Your task to perform on an android device: turn on javascript in the chrome app Image 0: 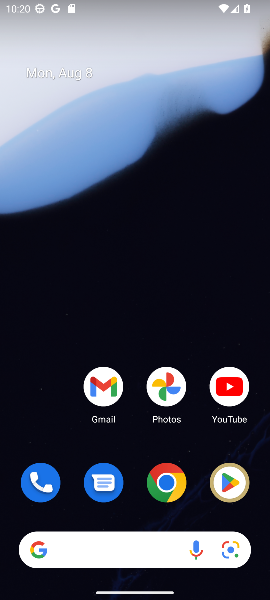
Step 0: click (154, 480)
Your task to perform on an android device: turn on javascript in the chrome app Image 1: 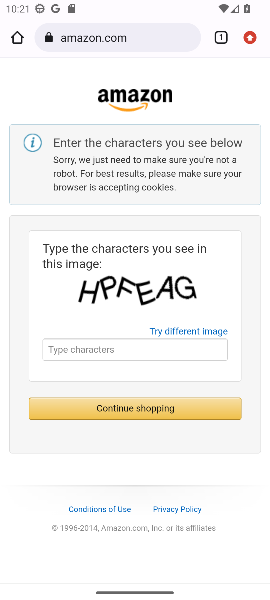
Step 1: click (252, 25)
Your task to perform on an android device: turn on javascript in the chrome app Image 2: 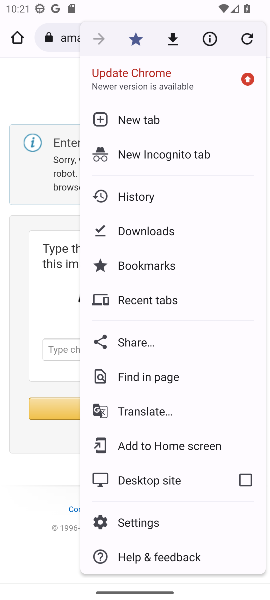
Step 2: click (140, 513)
Your task to perform on an android device: turn on javascript in the chrome app Image 3: 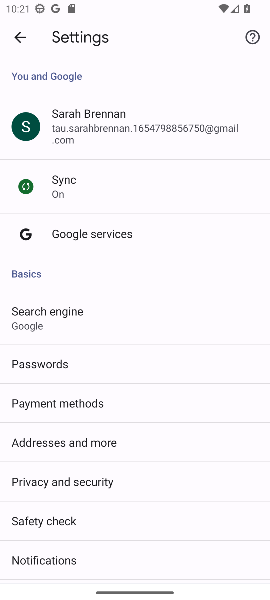
Step 3: drag from (85, 521) to (85, 85)
Your task to perform on an android device: turn on javascript in the chrome app Image 4: 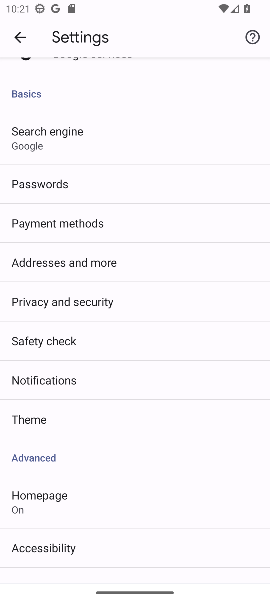
Step 4: drag from (67, 467) to (96, 75)
Your task to perform on an android device: turn on javascript in the chrome app Image 5: 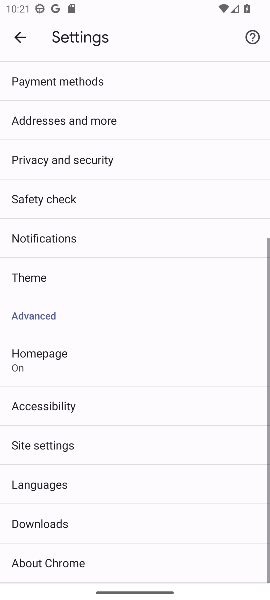
Step 5: click (80, 442)
Your task to perform on an android device: turn on javascript in the chrome app Image 6: 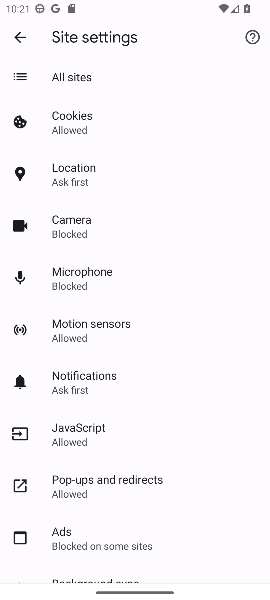
Step 6: click (103, 432)
Your task to perform on an android device: turn on javascript in the chrome app Image 7: 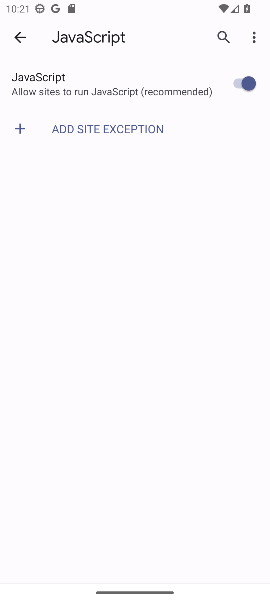
Step 7: task complete